Your task to perform on an android device: create a new album in the google photos Image 0: 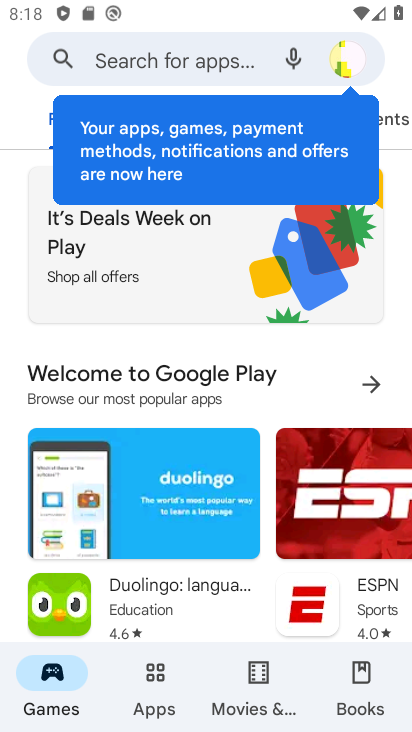
Step 0: press home button
Your task to perform on an android device: create a new album in the google photos Image 1: 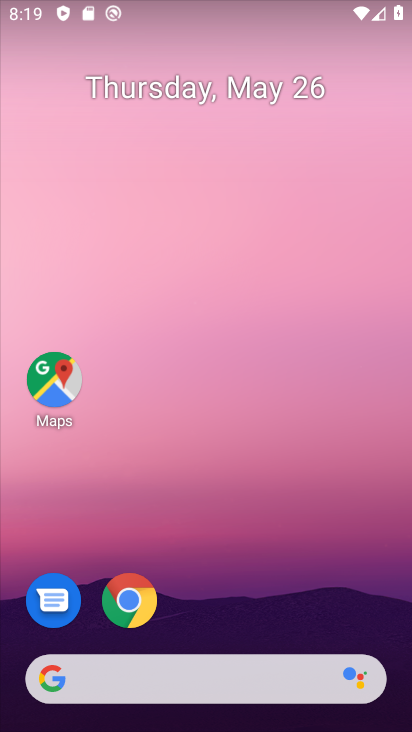
Step 1: drag from (177, 640) to (225, 21)
Your task to perform on an android device: create a new album in the google photos Image 2: 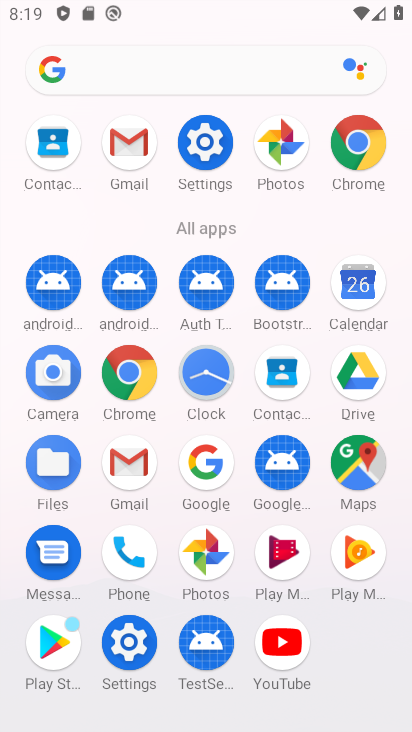
Step 2: click (301, 147)
Your task to perform on an android device: create a new album in the google photos Image 3: 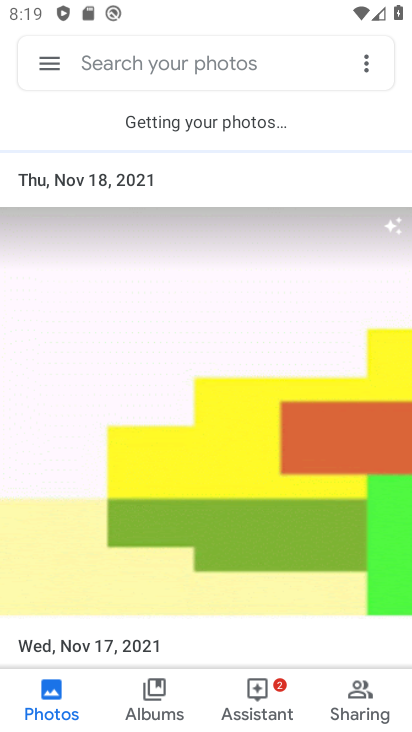
Step 3: click (190, 177)
Your task to perform on an android device: create a new album in the google photos Image 4: 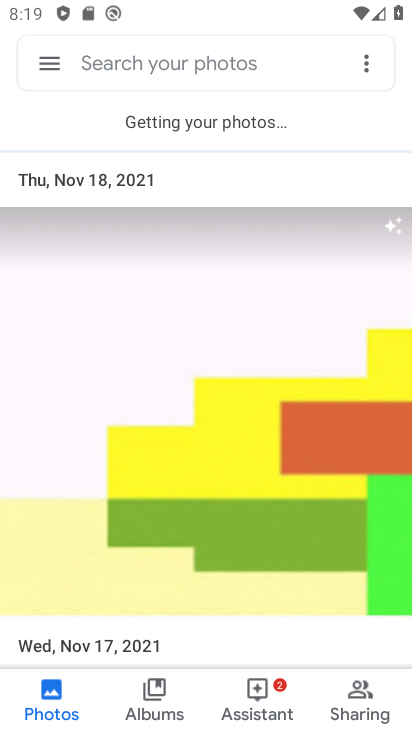
Step 4: click (190, 177)
Your task to perform on an android device: create a new album in the google photos Image 5: 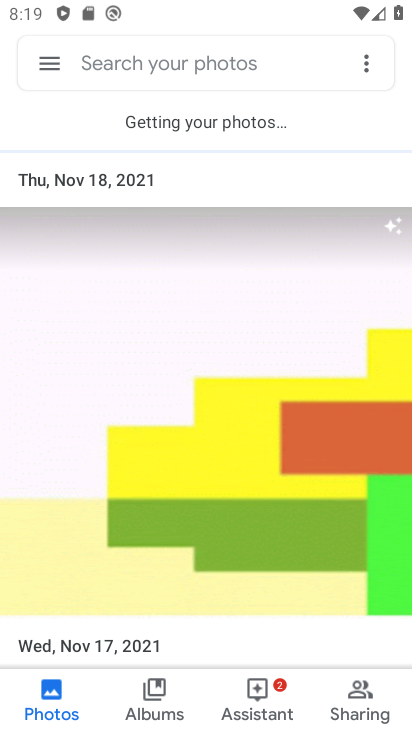
Step 5: click (151, 698)
Your task to perform on an android device: create a new album in the google photos Image 6: 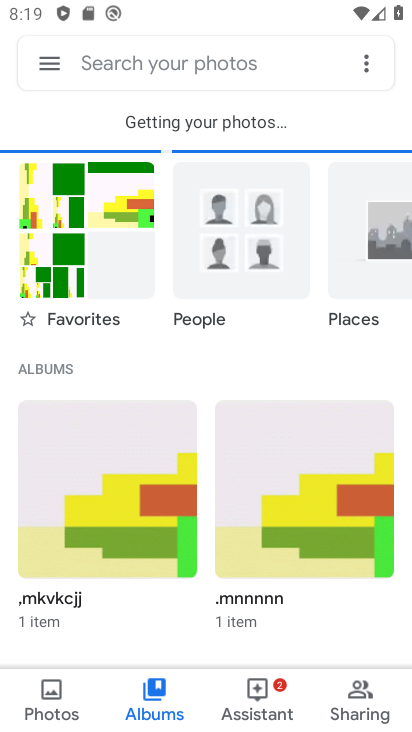
Step 6: click (363, 66)
Your task to perform on an android device: create a new album in the google photos Image 7: 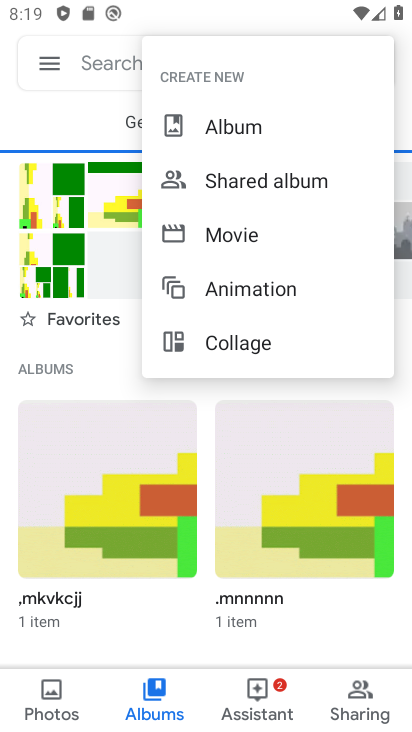
Step 7: click (215, 69)
Your task to perform on an android device: create a new album in the google photos Image 8: 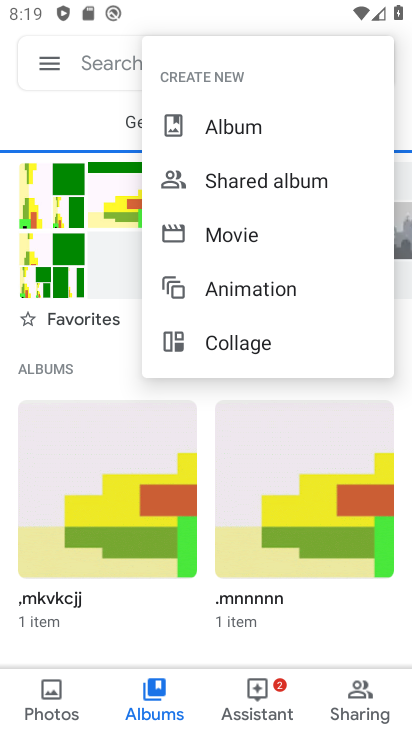
Step 8: click (257, 129)
Your task to perform on an android device: create a new album in the google photos Image 9: 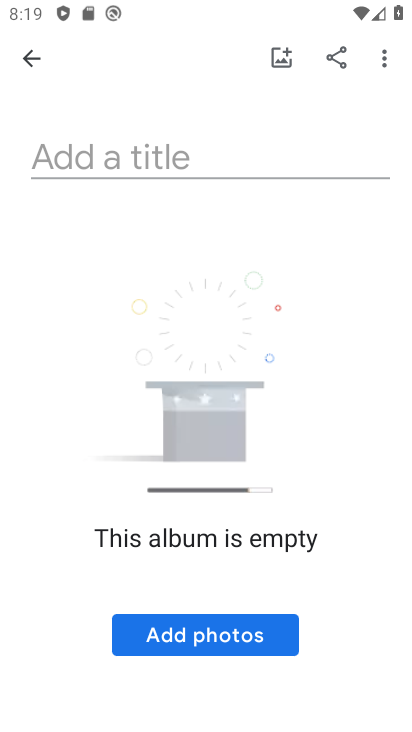
Step 9: click (177, 147)
Your task to perform on an android device: create a new album in the google photos Image 10: 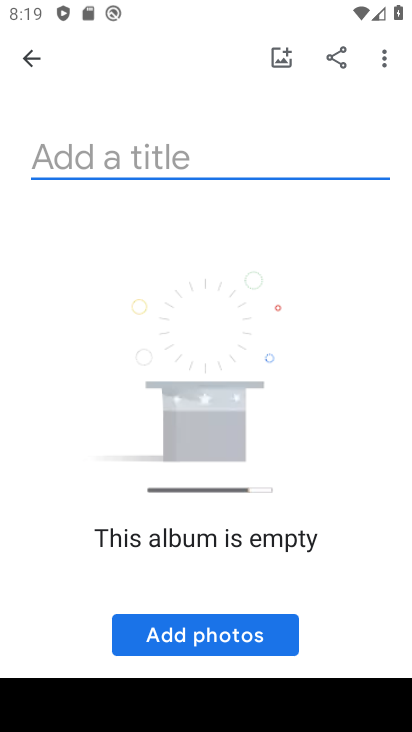
Step 10: type "oijuhgvfc"
Your task to perform on an android device: create a new album in the google photos Image 11: 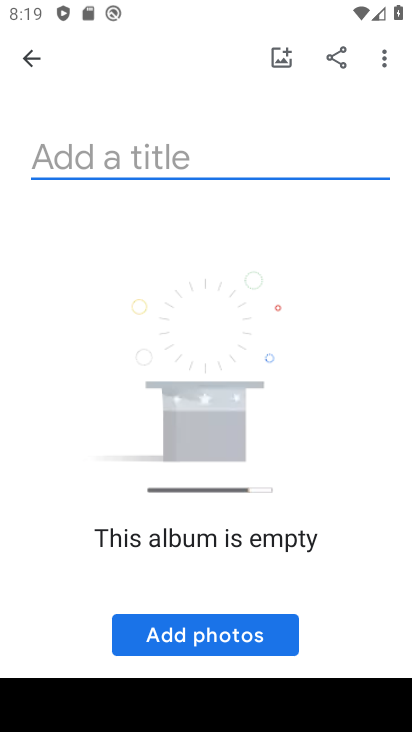
Step 11: click (282, 56)
Your task to perform on an android device: create a new album in the google photos Image 12: 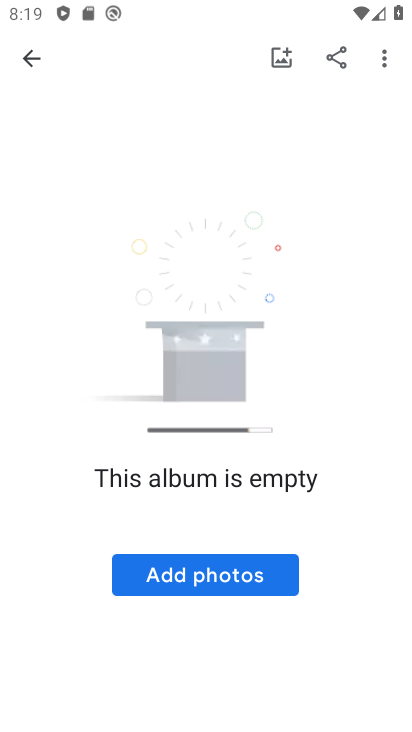
Step 12: click (226, 578)
Your task to perform on an android device: create a new album in the google photos Image 13: 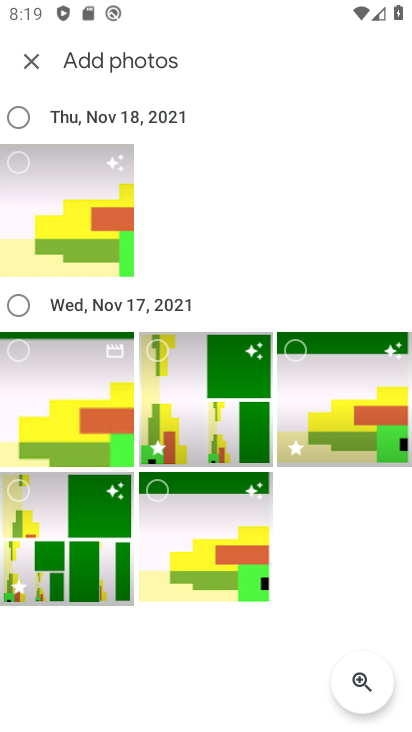
Step 13: click (94, 369)
Your task to perform on an android device: create a new album in the google photos Image 14: 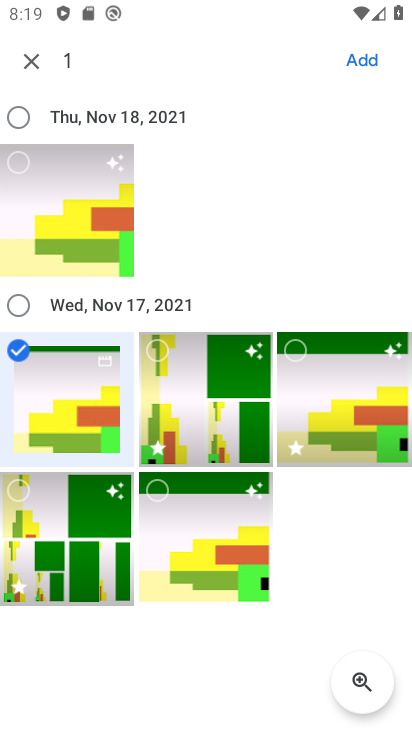
Step 14: click (206, 531)
Your task to perform on an android device: create a new album in the google photos Image 15: 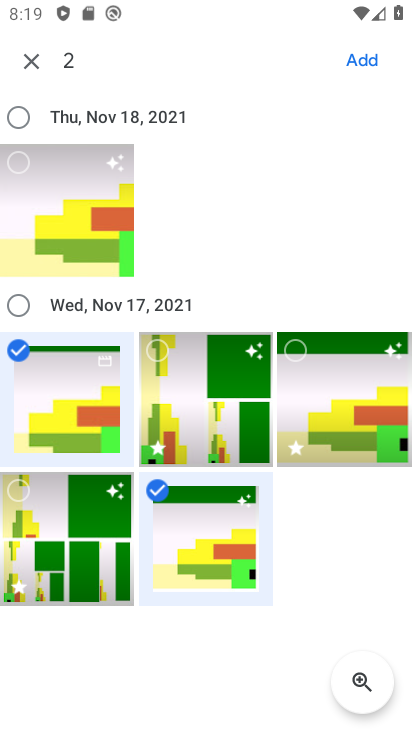
Step 15: click (377, 60)
Your task to perform on an android device: create a new album in the google photos Image 16: 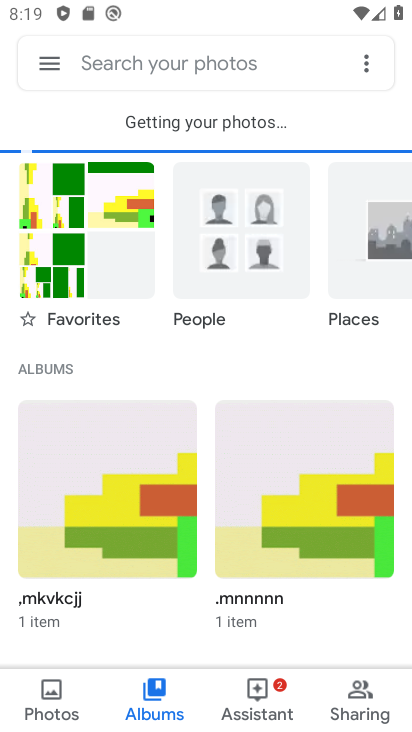
Step 16: task complete